Your task to perform on an android device: Is it going to rain today? Image 0: 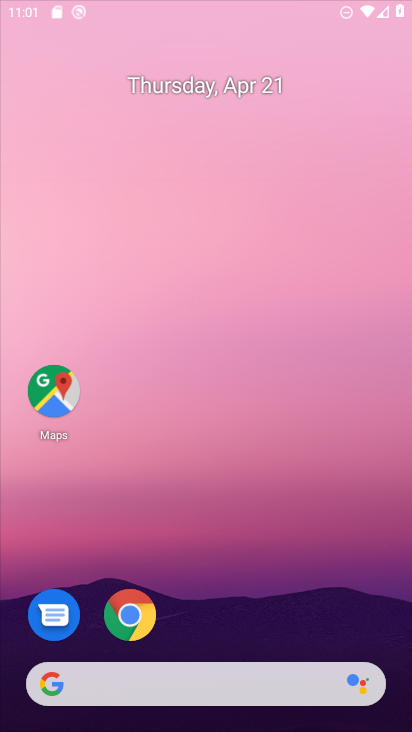
Step 0: drag from (219, 649) to (238, 42)
Your task to perform on an android device: Is it going to rain today? Image 1: 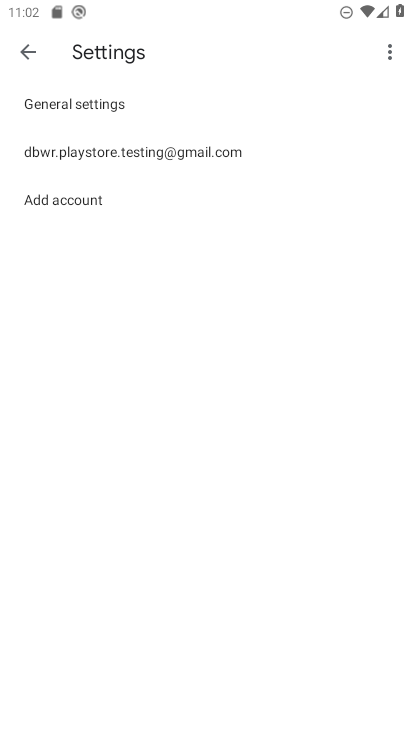
Step 1: press home button
Your task to perform on an android device: Is it going to rain today? Image 2: 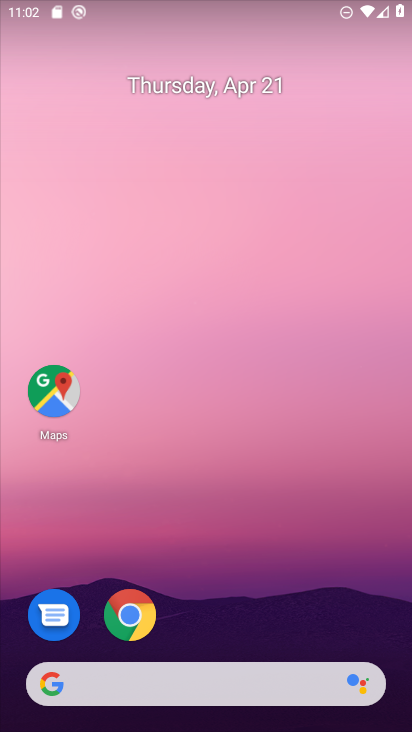
Step 2: click (138, 688)
Your task to perform on an android device: Is it going to rain today? Image 3: 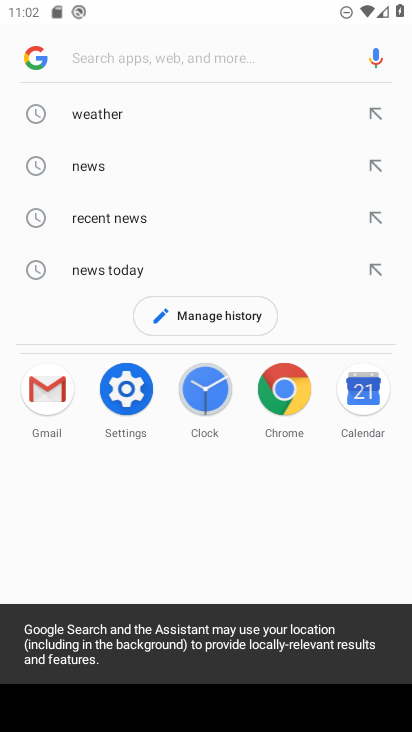
Step 3: click (130, 103)
Your task to perform on an android device: Is it going to rain today? Image 4: 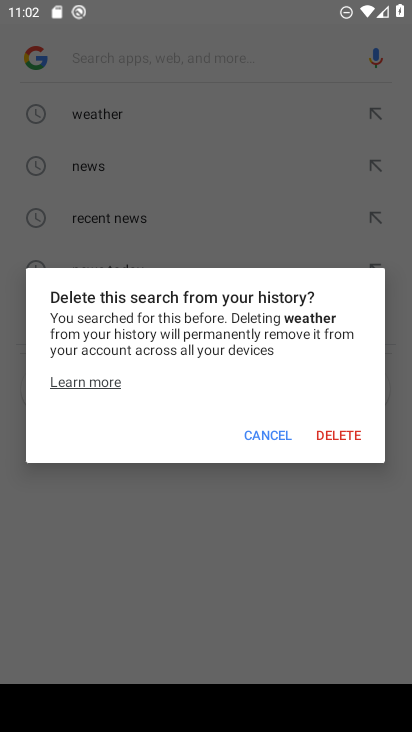
Step 4: click (262, 435)
Your task to perform on an android device: Is it going to rain today? Image 5: 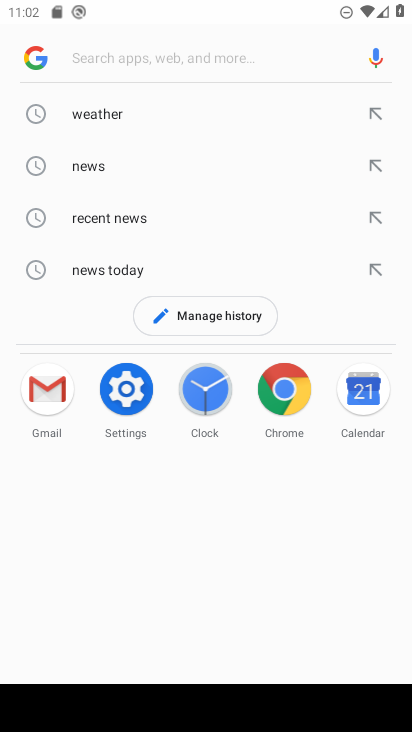
Step 5: click (88, 109)
Your task to perform on an android device: Is it going to rain today? Image 6: 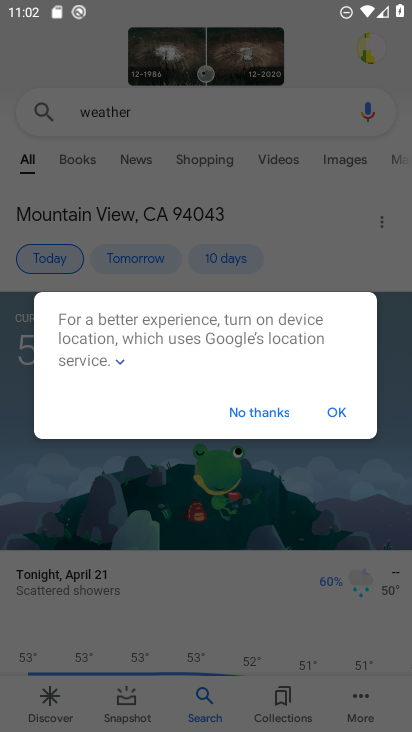
Step 6: click (348, 407)
Your task to perform on an android device: Is it going to rain today? Image 7: 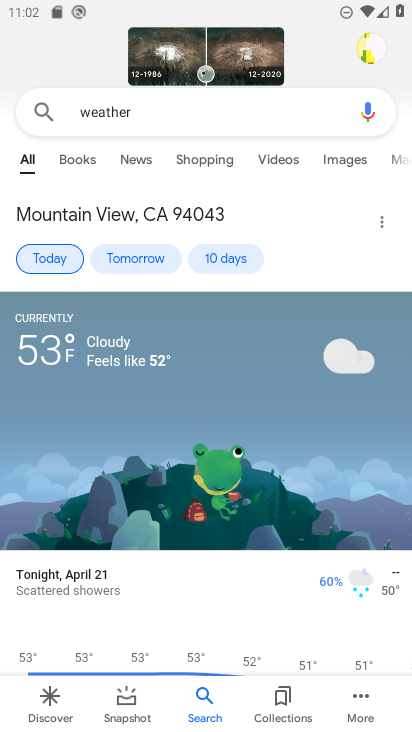
Step 7: click (163, 499)
Your task to perform on an android device: Is it going to rain today? Image 8: 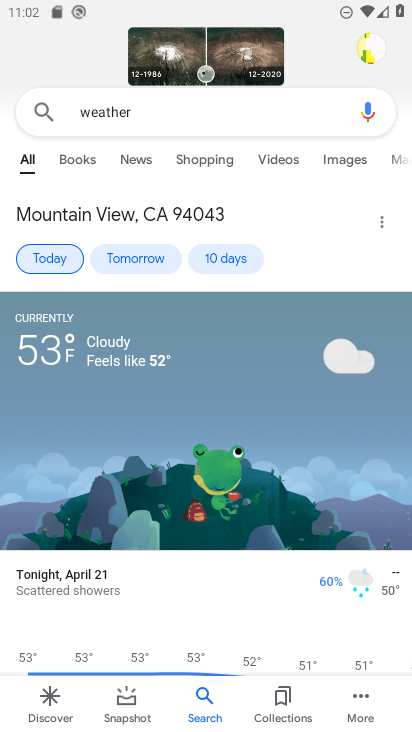
Step 8: task complete